Your task to perform on an android device: install app "Roku - Official Remote Control" Image 0: 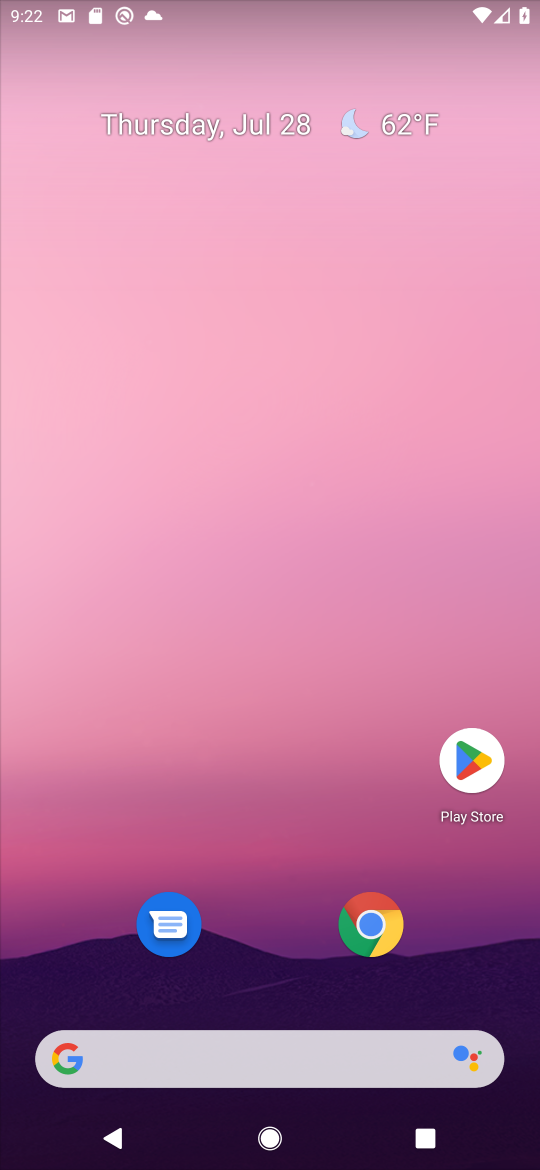
Step 0: click (472, 751)
Your task to perform on an android device: install app "Roku - Official Remote Control" Image 1: 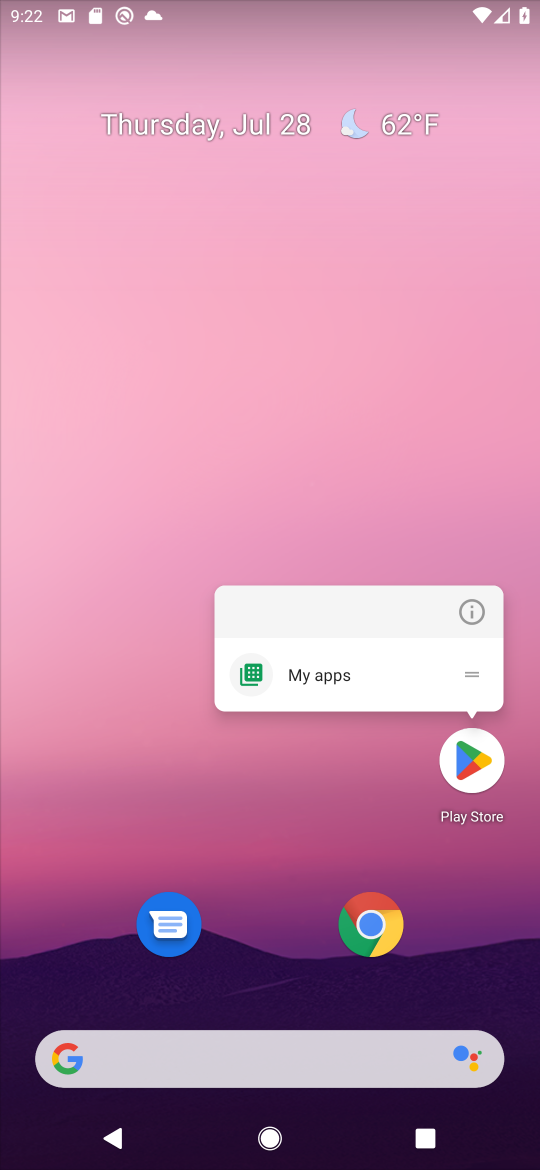
Step 1: click (472, 754)
Your task to perform on an android device: install app "Roku - Official Remote Control" Image 2: 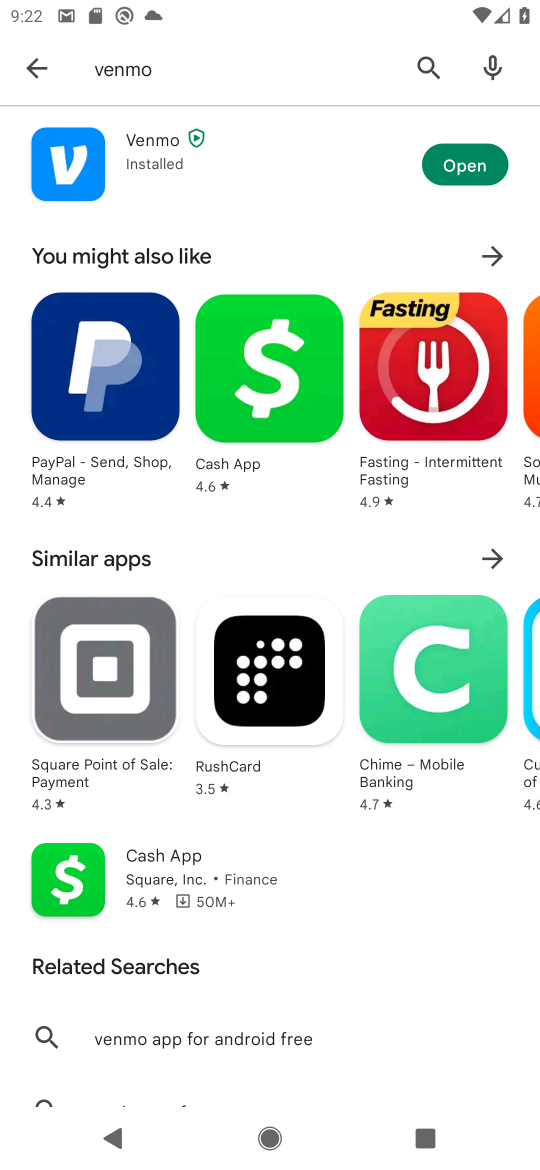
Step 2: click (415, 55)
Your task to perform on an android device: install app "Roku - Official Remote Control" Image 3: 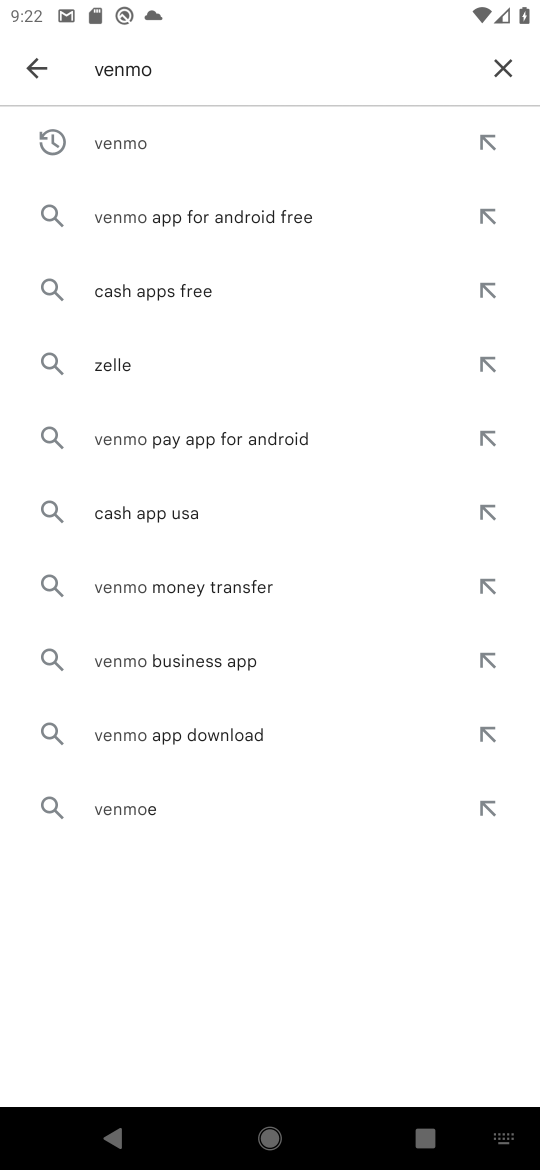
Step 3: click (496, 58)
Your task to perform on an android device: install app "Roku - Official Remote Control" Image 4: 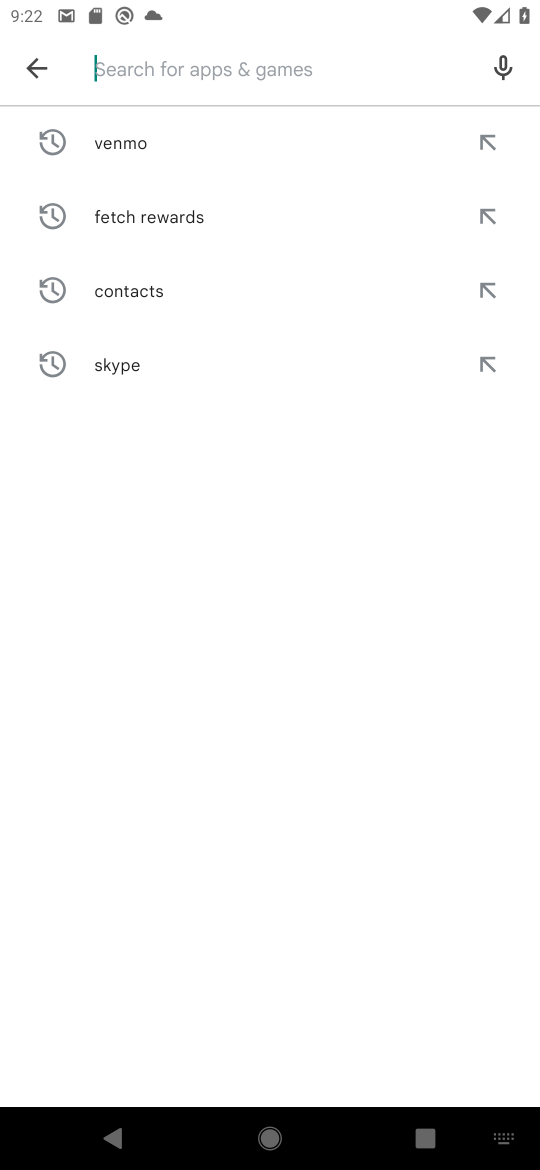
Step 4: type "Roku - Official Remote Control"
Your task to perform on an android device: install app "Roku - Official Remote Control" Image 5: 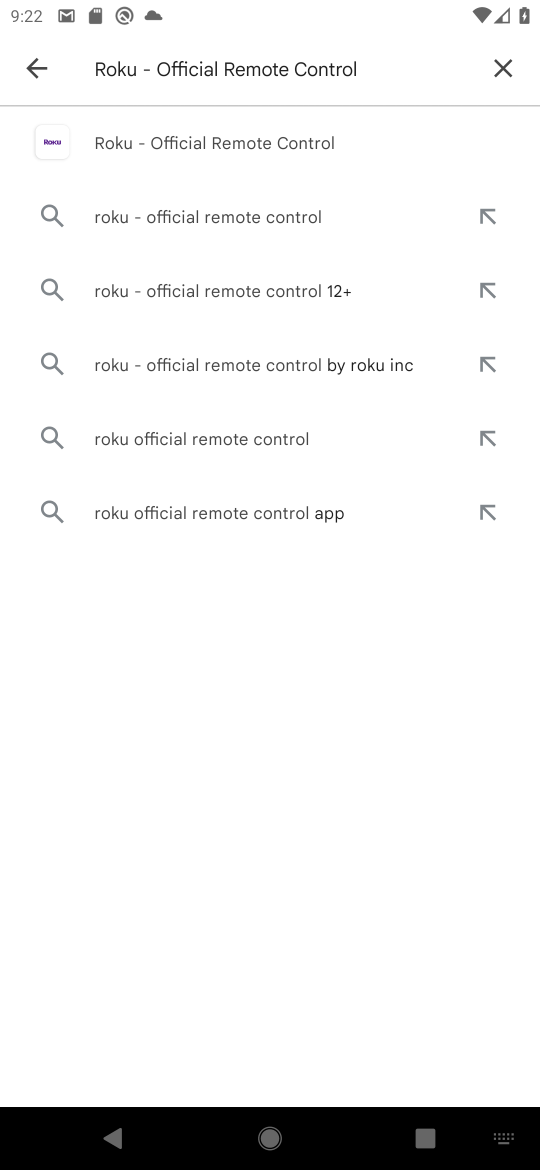
Step 5: click (184, 144)
Your task to perform on an android device: install app "Roku - Official Remote Control" Image 6: 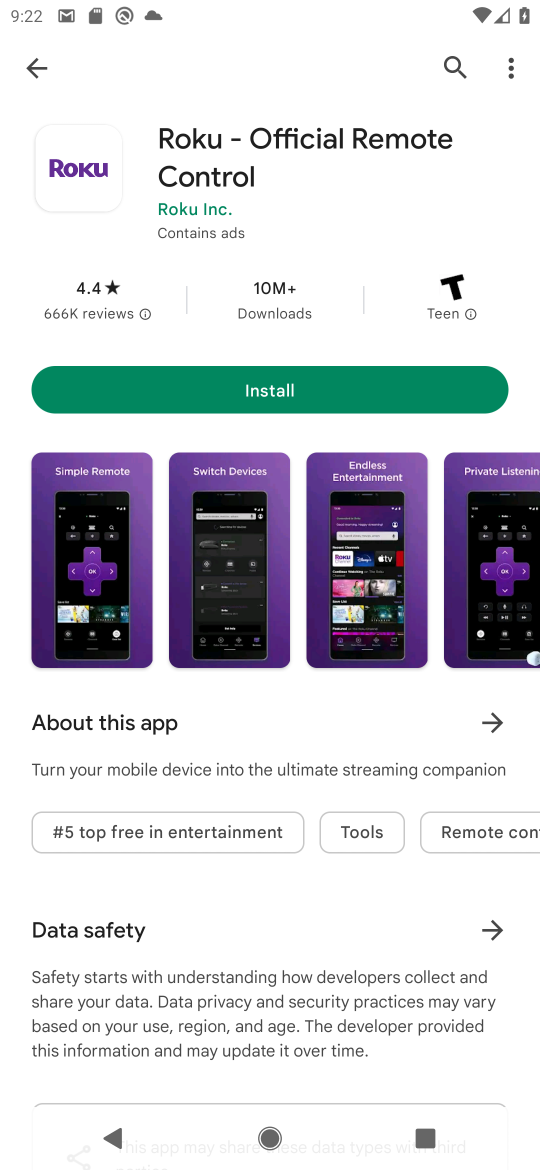
Step 6: click (250, 395)
Your task to perform on an android device: install app "Roku - Official Remote Control" Image 7: 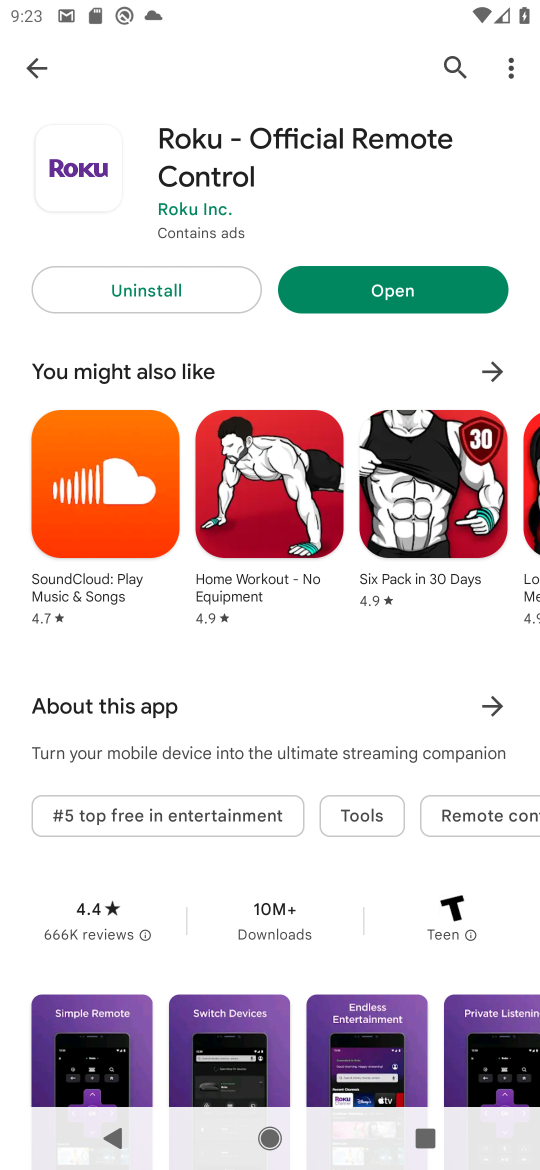
Step 7: task complete